Your task to perform on an android device: change the clock display to show seconds Image 0: 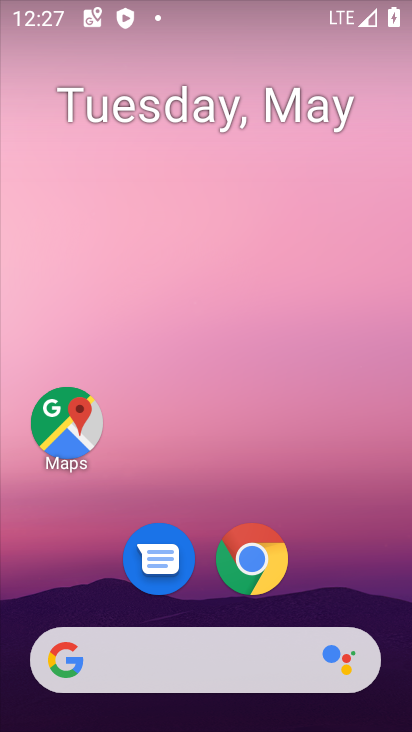
Step 0: drag from (358, 559) to (329, 83)
Your task to perform on an android device: change the clock display to show seconds Image 1: 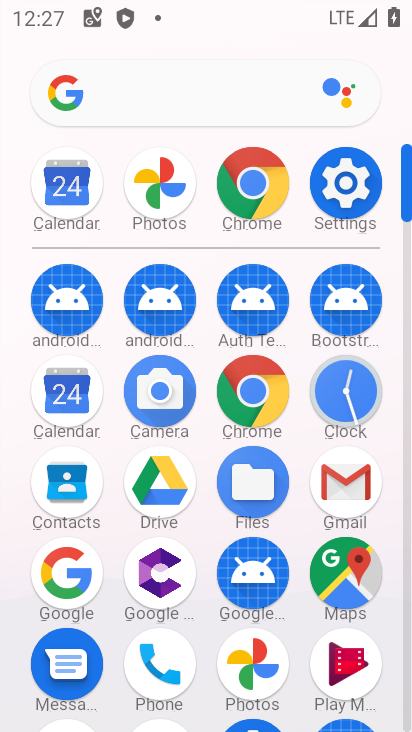
Step 1: click (353, 387)
Your task to perform on an android device: change the clock display to show seconds Image 2: 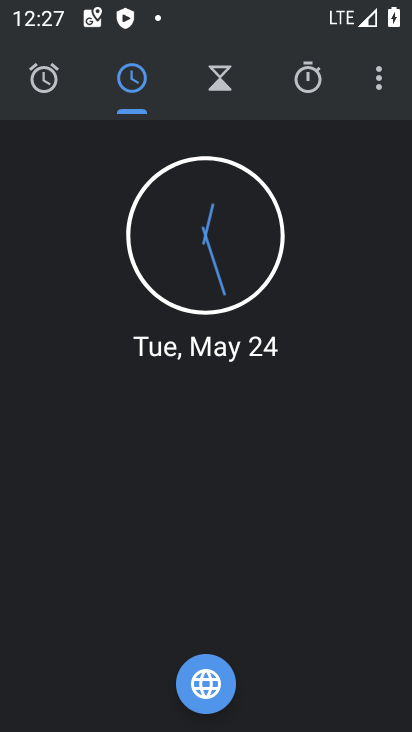
Step 2: click (376, 84)
Your task to perform on an android device: change the clock display to show seconds Image 3: 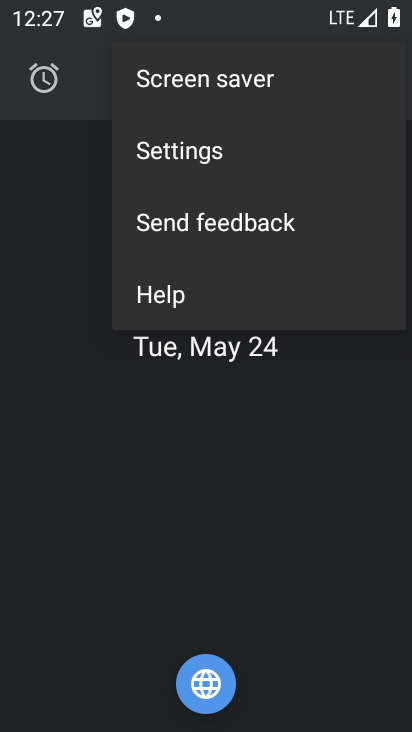
Step 3: click (268, 147)
Your task to perform on an android device: change the clock display to show seconds Image 4: 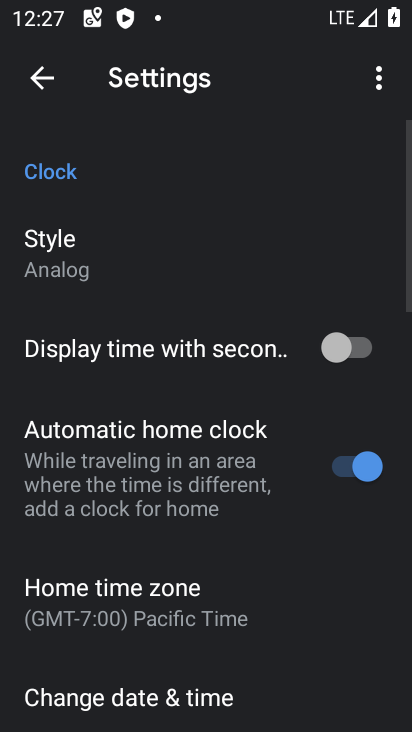
Step 4: click (328, 328)
Your task to perform on an android device: change the clock display to show seconds Image 5: 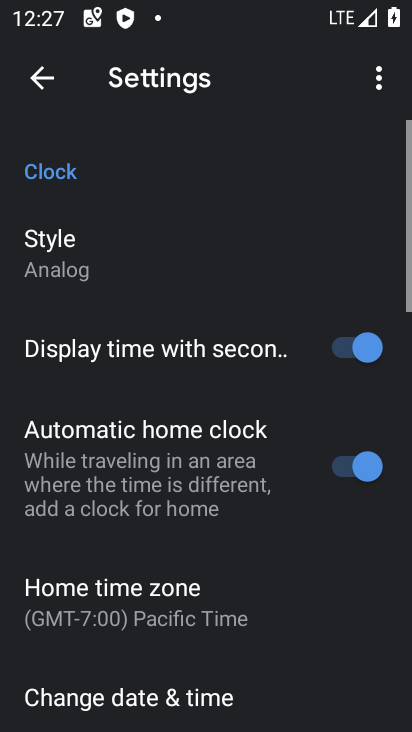
Step 5: task complete